Your task to perform on an android device: What's the weather going to be tomorrow? Image 0: 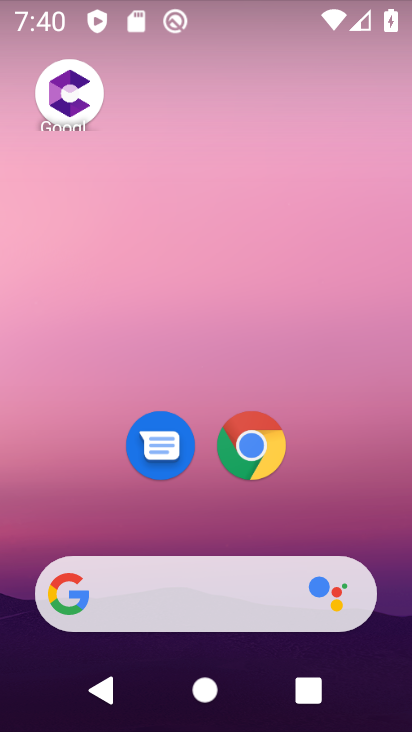
Step 0: drag from (255, 414) to (0, 6)
Your task to perform on an android device: What's the weather going to be tomorrow? Image 1: 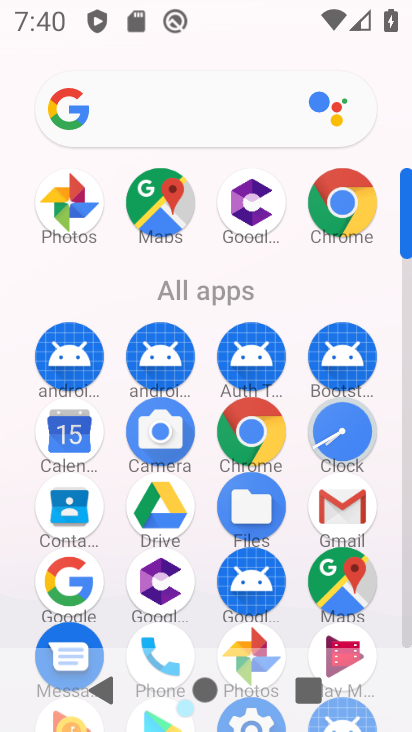
Step 1: drag from (219, 522) to (352, 181)
Your task to perform on an android device: What's the weather going to be tomorrow? Image 2: 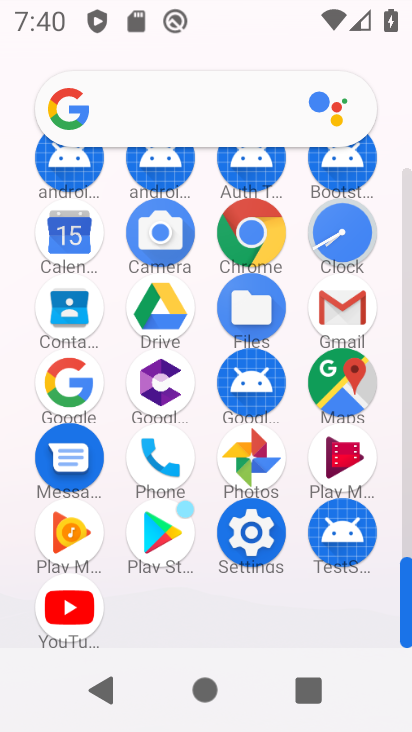
Step 2: click (69, 399)
Your task to perform on an android device: What's the weather going to be tomorrow? Image 3: 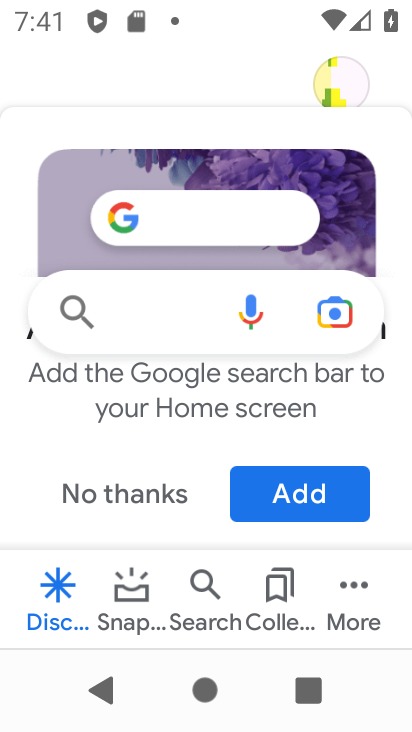
Step 3: click (154, 496)
Your task to perform on an android device: What's the weather going to be tomorrow? Image 4: 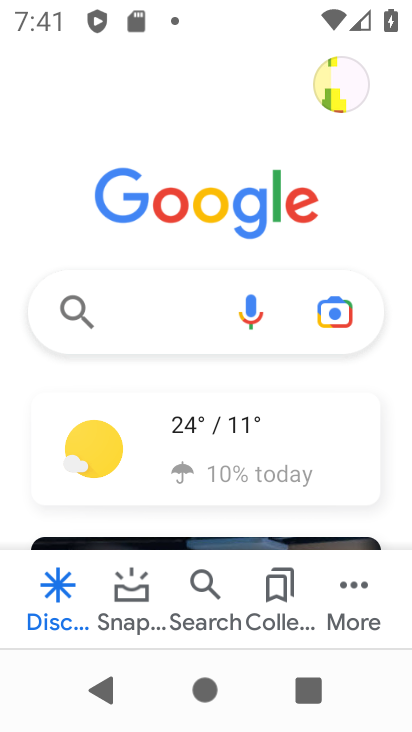
Step 4: click (187, 321)
Your task to perform on an android device: What's the weather going to be tomorrow? Image 5: 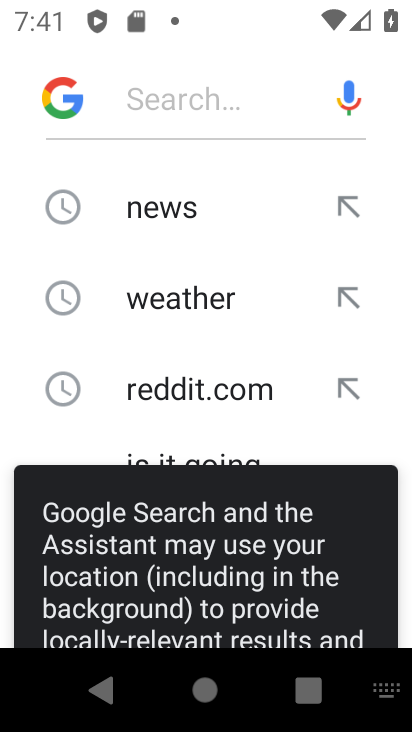
Step 5: click (216, 297)
Your task to perform on an android device: What's the weather going to be tomorrow? Image 6: 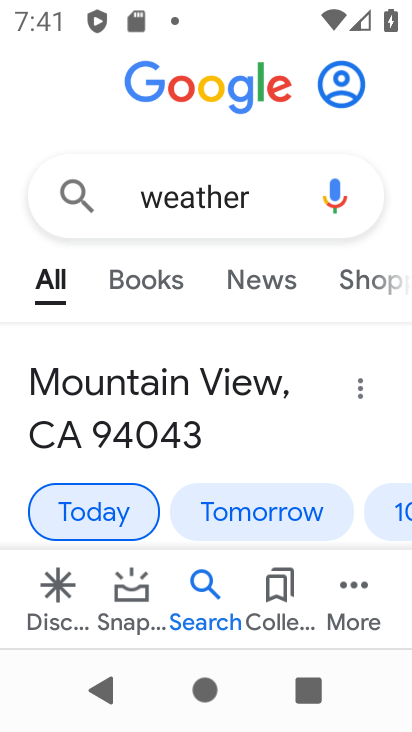
Step 6: drag from (180, 437) to (227, 227)
Your task to perform on an android device: What's the weather going to be tomorrow? Image 7: 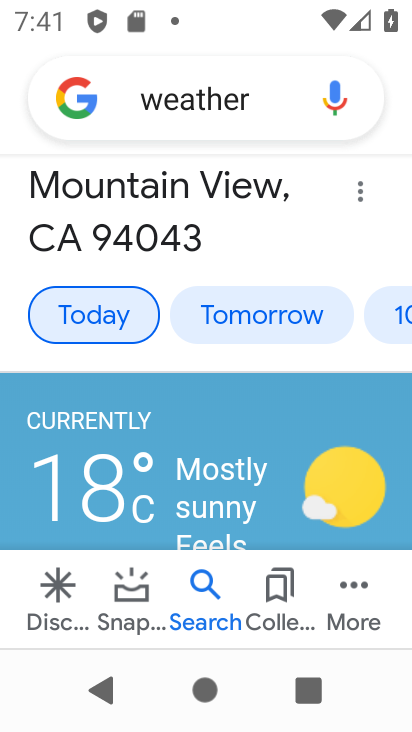
Step 7: click (217, 326)
Your task to perform on an android device: What's the weather going to be tomorrow? Image 8: 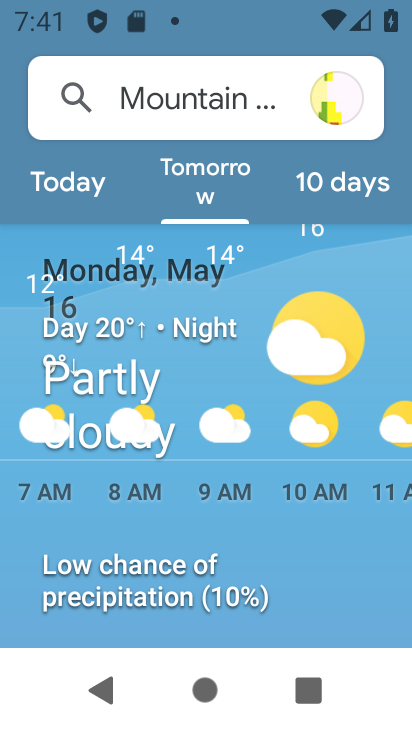
Step 8: task complete